Your task to perform on an android device: Go to Google maps Image 0: 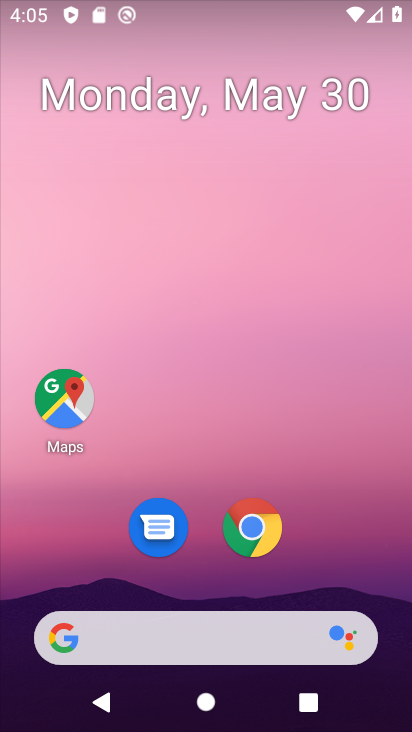
Step 0: drag from (208, 725) to (190, 78)
Your task to perform on an android device: Go to Google maps Image 1: 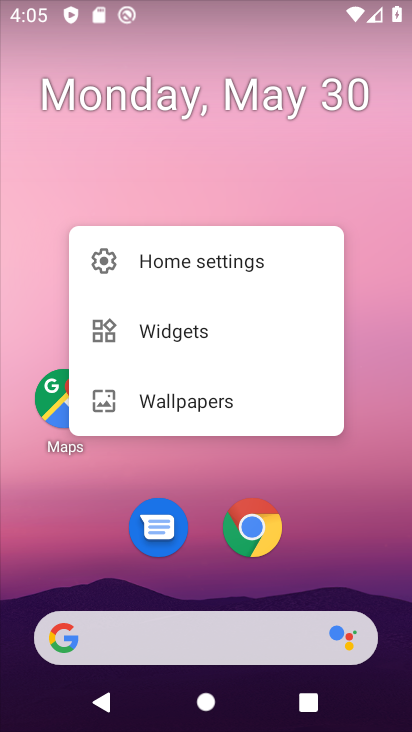
Step 1: click (196, 473)
Your task to perform on an android device: Go to Google maps Image 2: 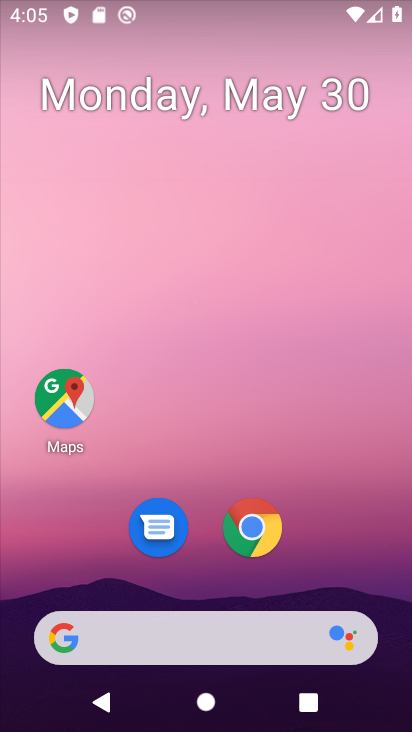
Step 2: drag from (229, 721) to (192, 110)
Your task to perform on an android device: Go to Google maps Image 3: 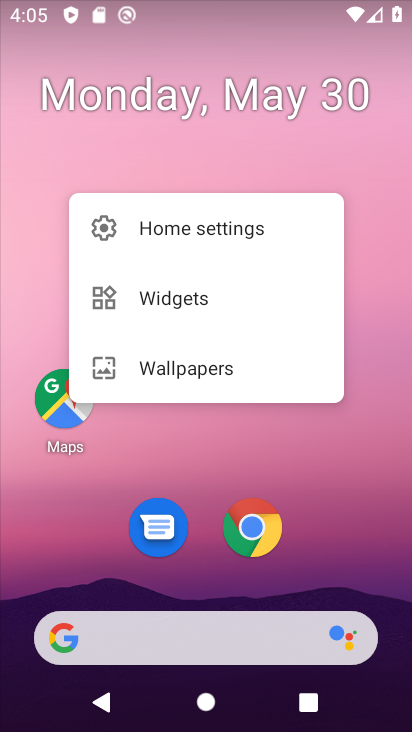
Step 3: click (228, 445)
Your task to perform on an android device: Go to Google maps Image 4: 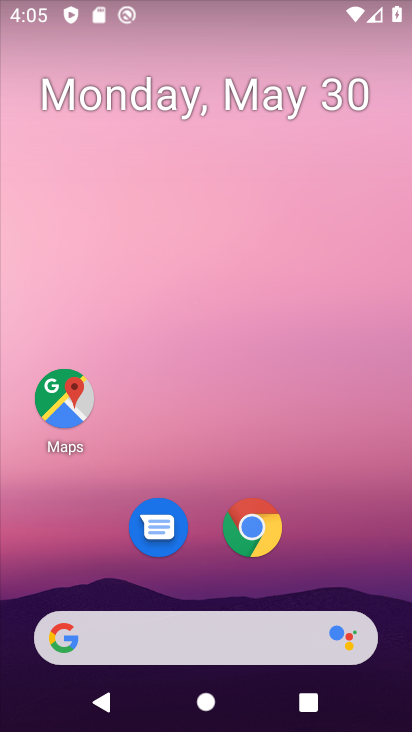
Step 4: drag from (240, 692) to (225, 42)
Your task to perform on an android device: Go to Google maps Image 5: 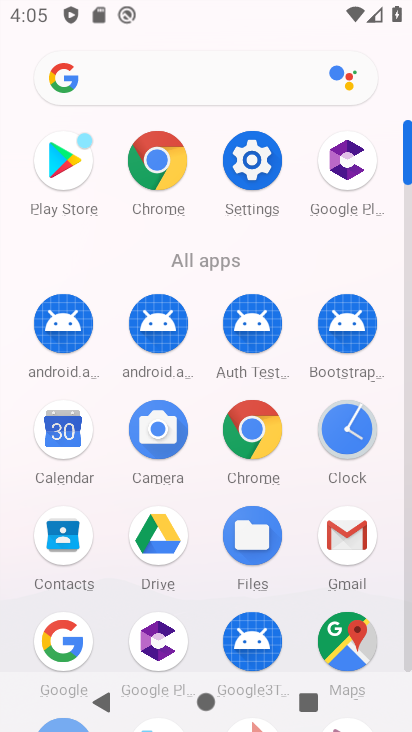
Step 5: click (349, 635)
Your task to perform on an android device: Go to Google maps Image 6: 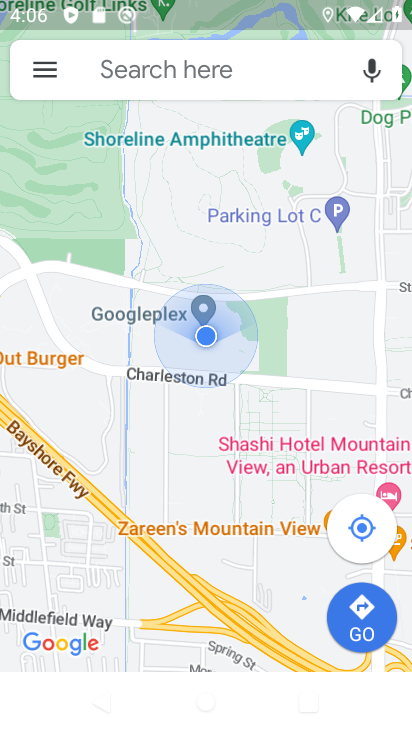
Step 6: task complete